Your task to perform on an android device: Open privacy settings Image 0: 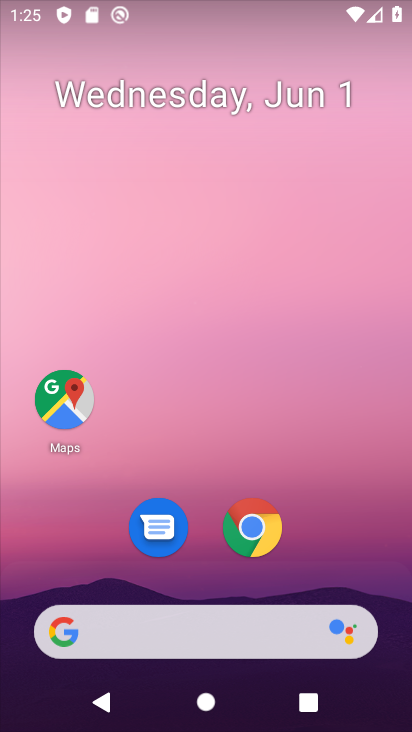
Step 0: drag from (358, 570) to (241, 204)
Your task to perform on an android device: Open privacy settings Image 1: 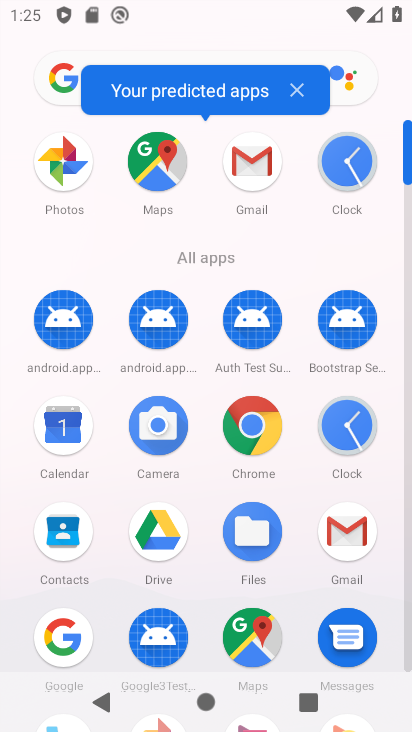
Step 1: click (408, 643)
Your task to perform on an android device: Open privacy settings Image 2: 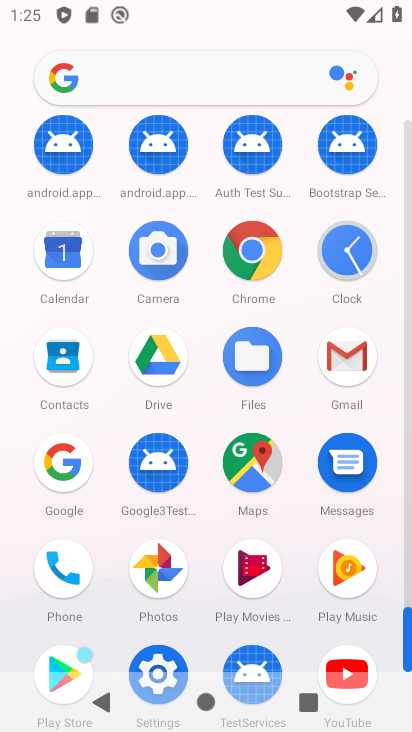
Step 2: click (163, 656)
Your task to perform on an android device: Open privacy settings Image 3: 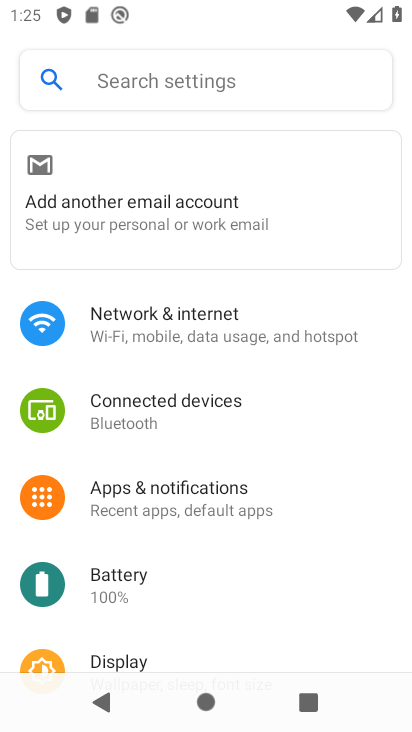
Step 3: drag from (244, 610) to (176, 286)
Your task to perform on an android device: Open privacy settings Image 4: 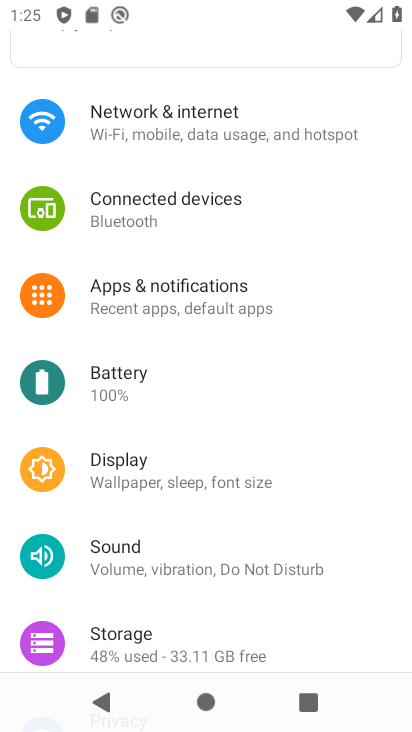
Step 4: drag from (214, 557) to (177, 185)
Your task to perform on an android device: Open privacy settings Image 5: 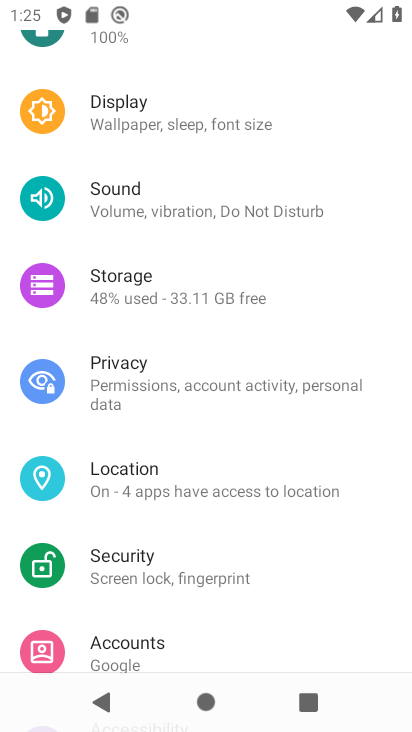
Step 5: click (166, 392)
Your task to perform on an android device: Open privacy settings Image 6: 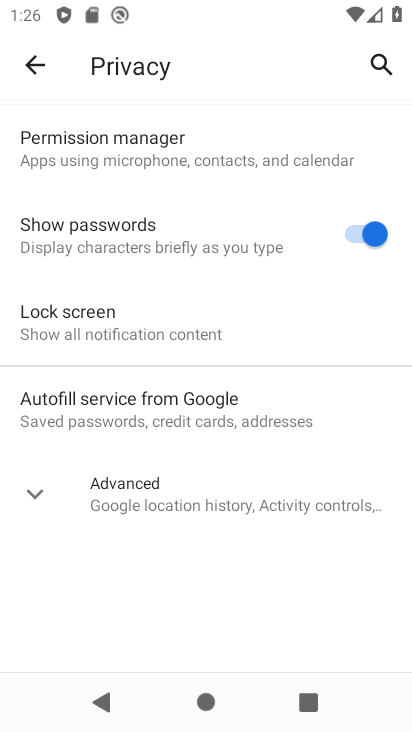
Step 6: task complete